Your task to perform on an android device: Go to sound settings Image 0: 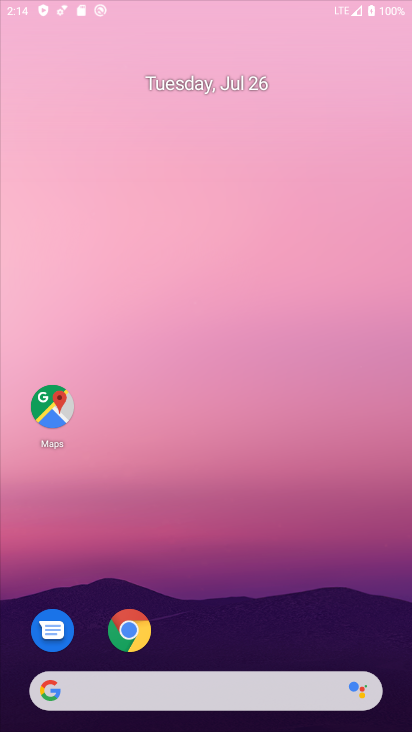
Step 0: drag from (255, 654) to (270, 403)
Your task to perform on an android device: Go to sound settings Image 1: 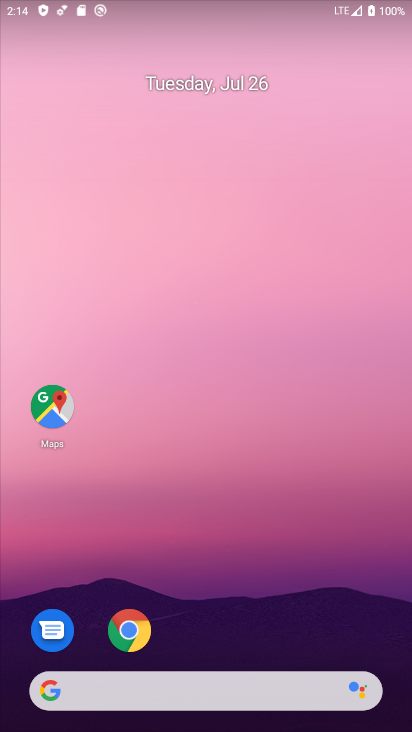
Step 1: drag from (226, 626) to (193, 134)
Your task to perform on an android device: Go to sound settings Image 2: 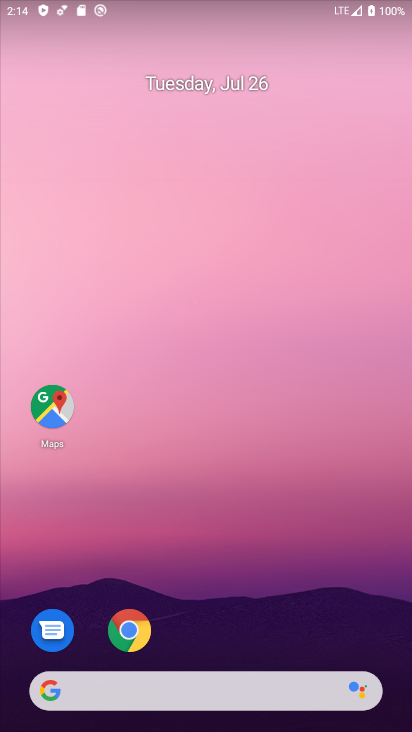
Step 2: drag from (174, 505) to (192, 64)
Your task to perform on an android device: Go to sound settings Image 3: 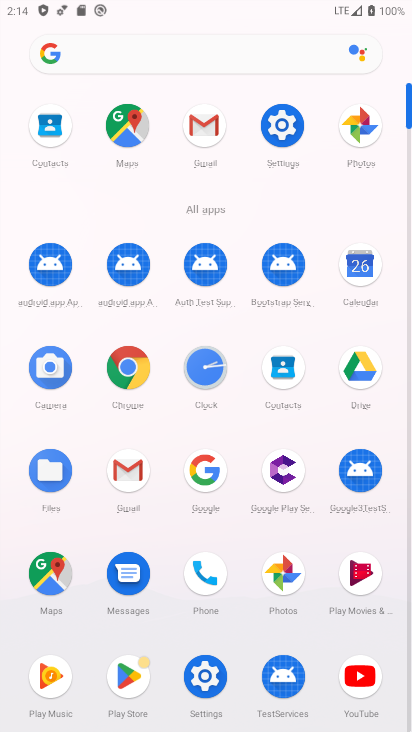
Step 3: drag from (180, 527) to (222, 99)
Your task to perform on an android device: Go to sound settings Image 4: 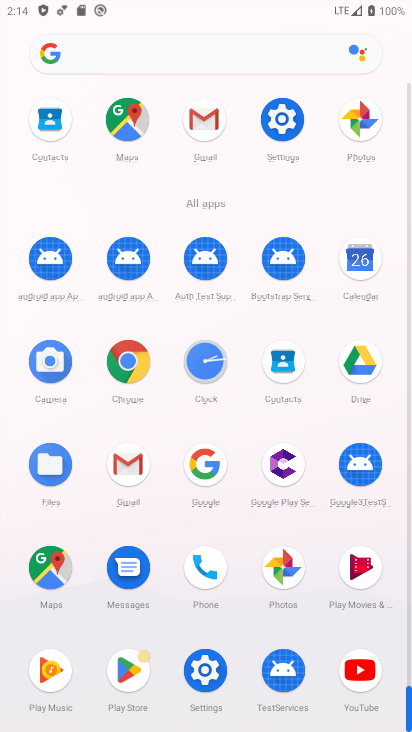
Step 4: click (276, 117)
Your task to perform on an android device: Go to sound settings Image 5: 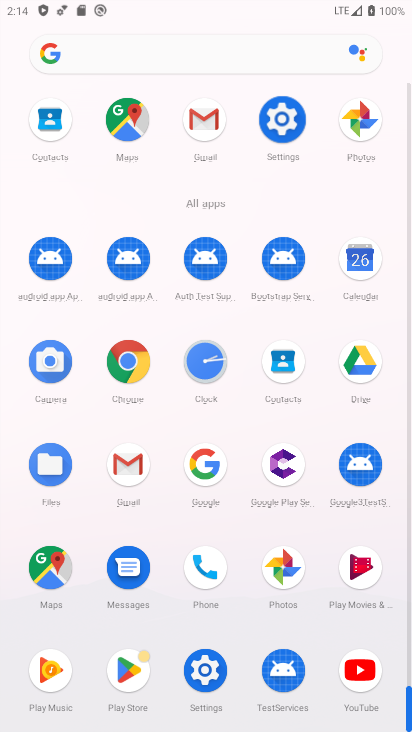
Step 5: click (300, 156)
Your task to perform on an android device: Go to sound settings Image 6: 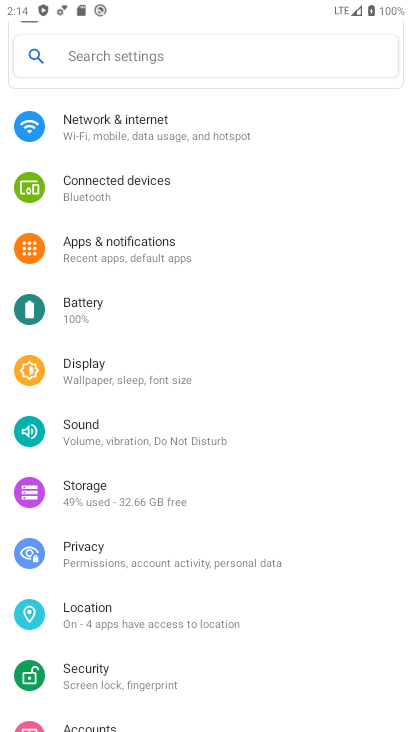
Step 6: click (93, 374)
Your task to perform on an android device: Go to sound settings Image 7: 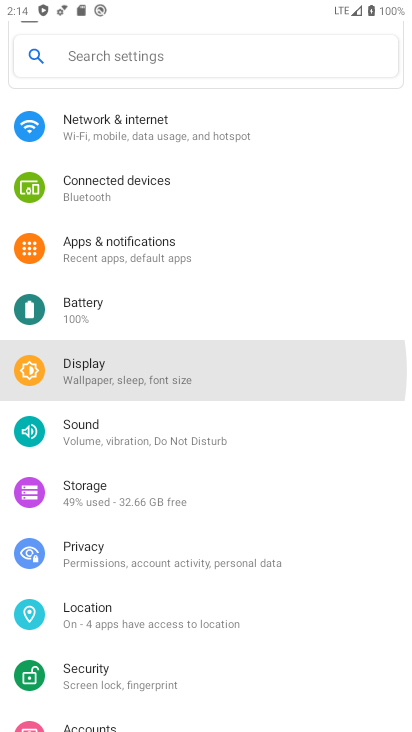
Step 7: click (99, 379)
Your task to perform on an android device: Go to sound settings Image 8: 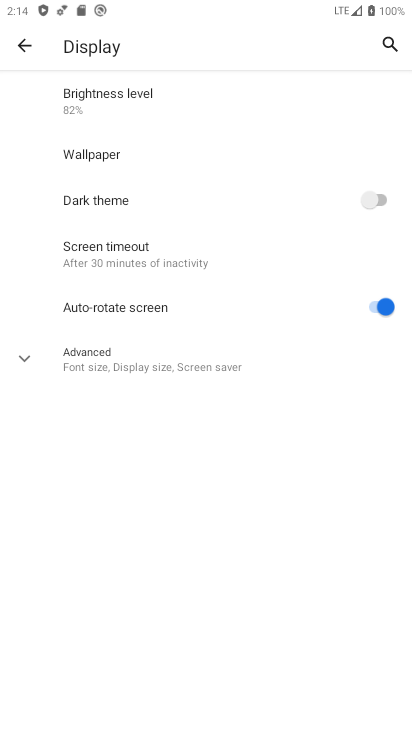
Step 8: click (103, 360)
Your task to perform on an android device: Go to sound settings Image 9: 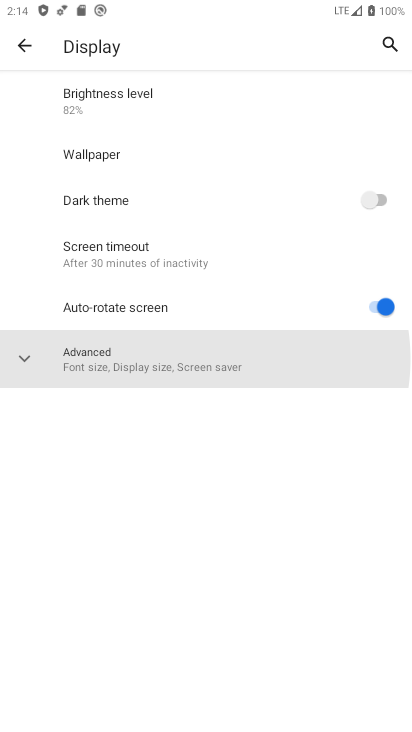
Step 9: click (102, 359)
Your task to perform on an android device: Go to sound settings Image 10: 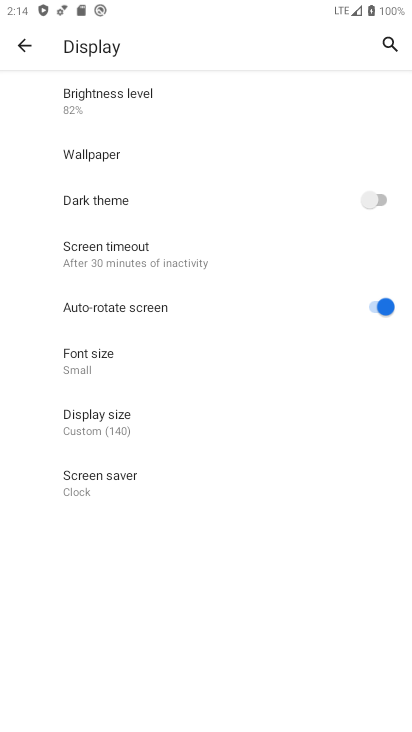
Step 10: click (96, 357)
Your task to perform on an android device: Go to sound settings Image 11: 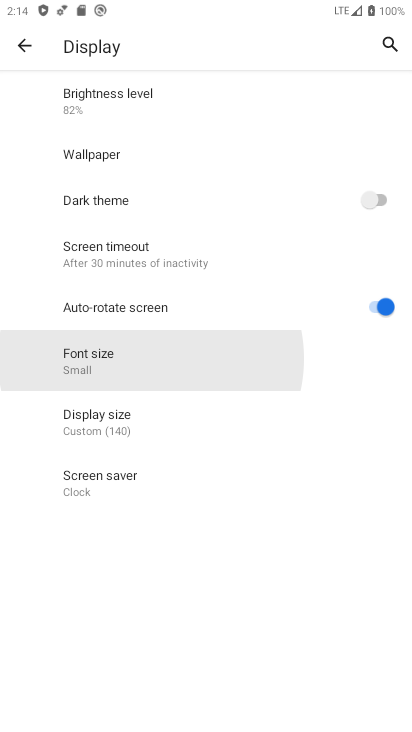
Step 11: click (96, 357)
Your task to perform on an android device: Go to sound settings Image 12: 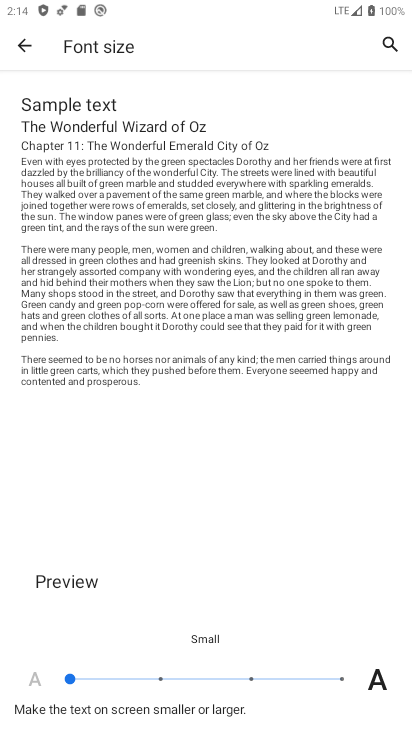
Step 12: click (343, 676)
Your task to perform on an android device: Go to sound settings Image 13: 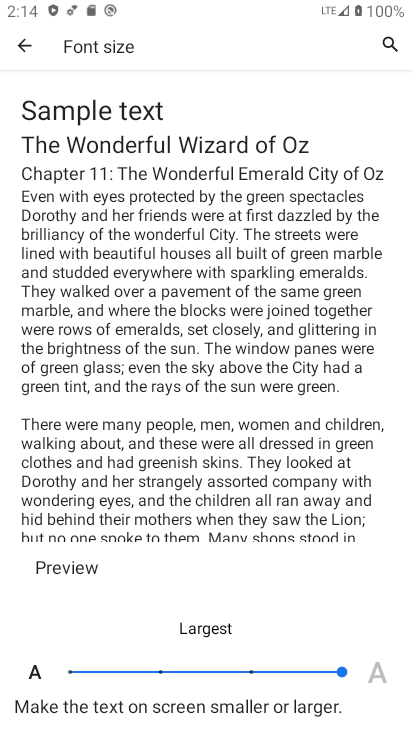
Step 13: task complete